Your task to perform on an android device: Open privacy settings Image 0: 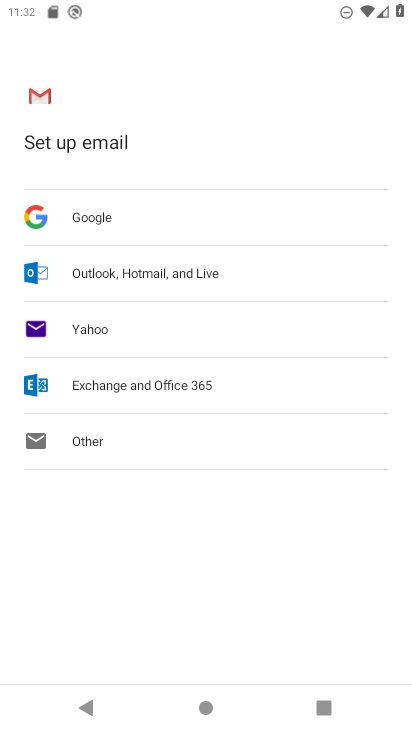
Step 0: press home button
Your task to perform on an android device: Open privacy settings Image 1: 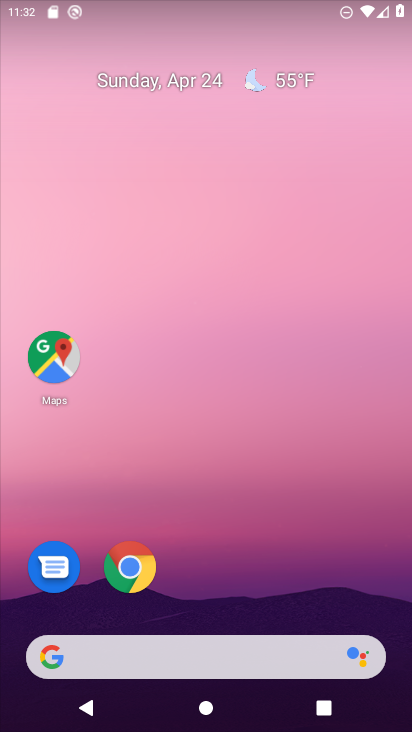
Step 1: drag from (409, 603) to (396, 268)
Your task to perform on an android device: Open privacy settings Image 2: 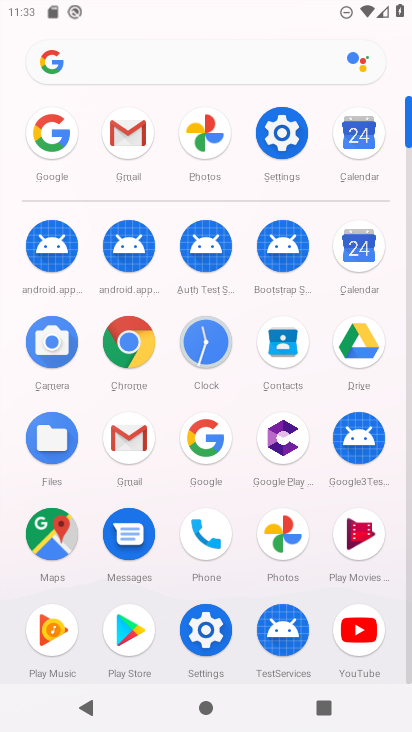
Step 2: click (281, 135)
Your task to perform on an android device: Open privacy settings Image 3: 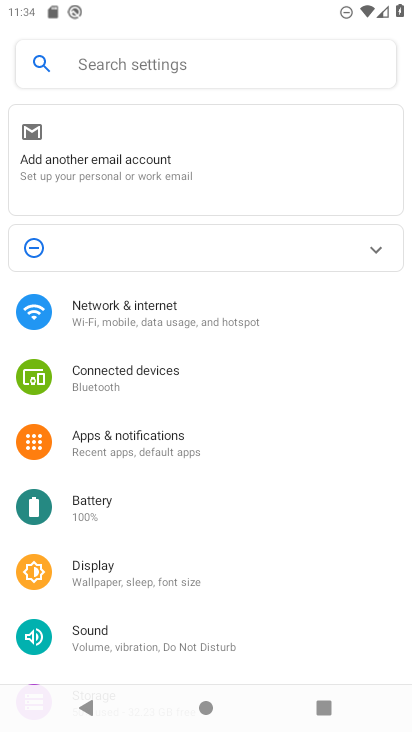
Step 3: drag from (296, 469) to (288, 351)
Your task to perform on an android device: Open privacy settings Image 4: 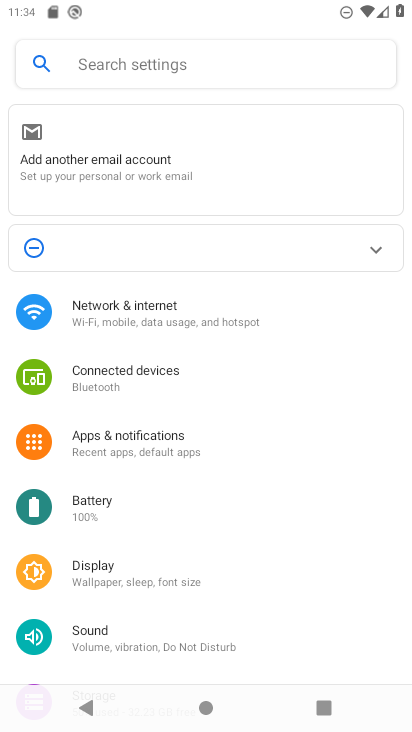
Step 4: drag from (275, 451) to (270, 368)
Your task to perform on an android device: Open privacy settings Image 5: 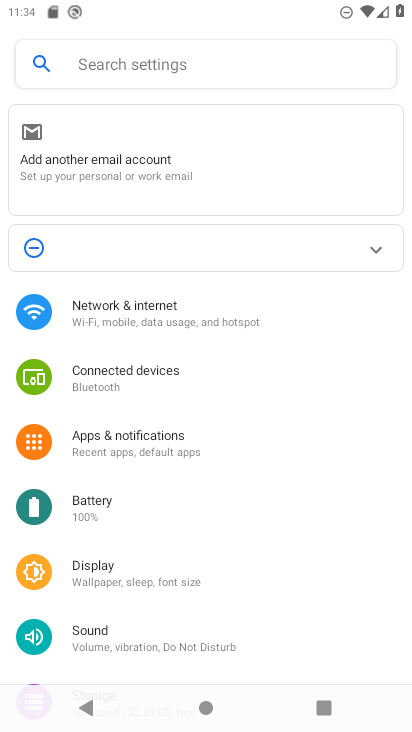
Step 5: drag from (315, 459) to (327, 291)
Your task to perform on an android device: Open privacy settings Image 6: 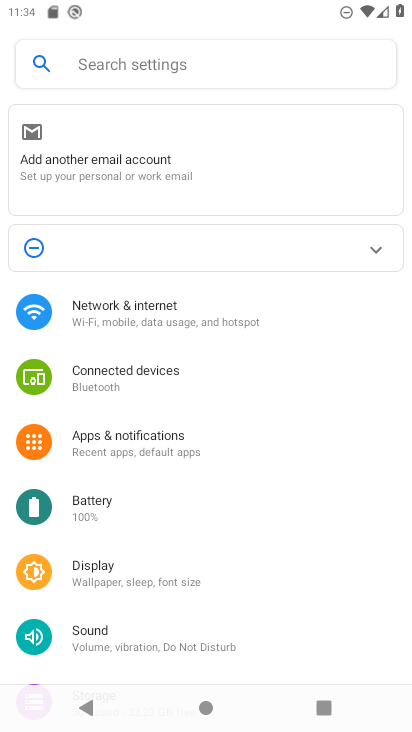
Step 6: drag from (304, 645) to (301, 214)
Your task to perform on an android device: Open privacy settings Image 7: 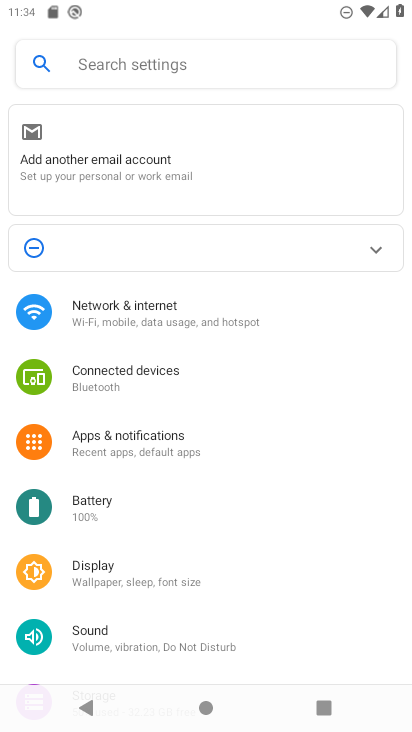
Step 7: press home button
Your task to perform on an android device: Open privacy settings Image 8: 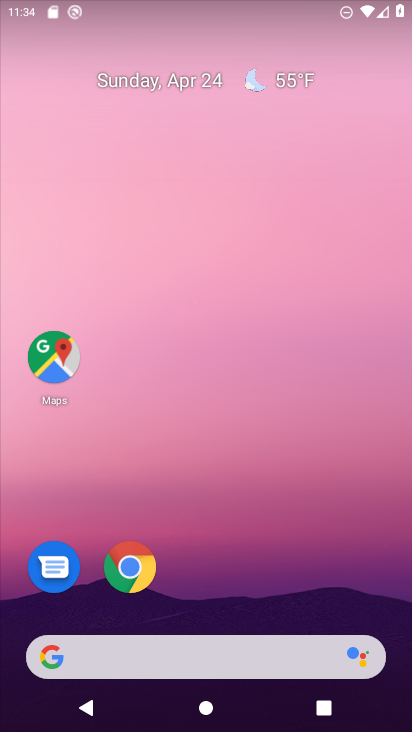
Step 8: drag from (379, 601) to (375, 193)
Your task to perform on an android device: Open privacy settings Image 9: 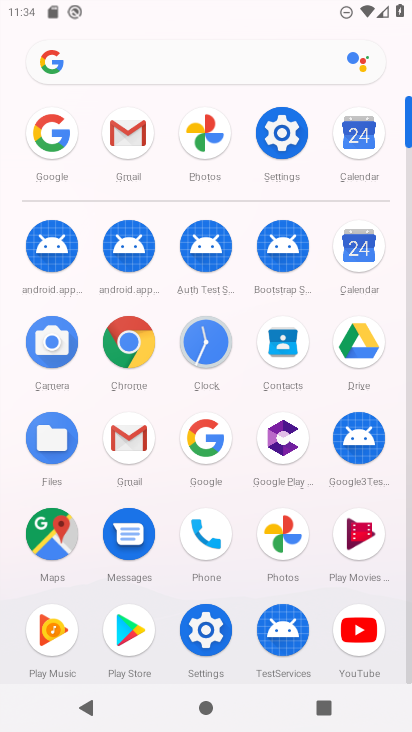
Step 9: click (275, 131)
Your task to perform on an android device: Open privacy settings Image 10: 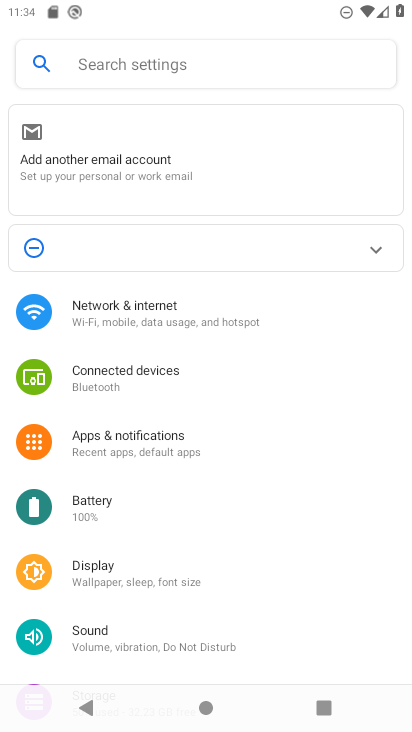
Step 10: press home button
Your task to perform on an android device: Open privacy settings Image 11: 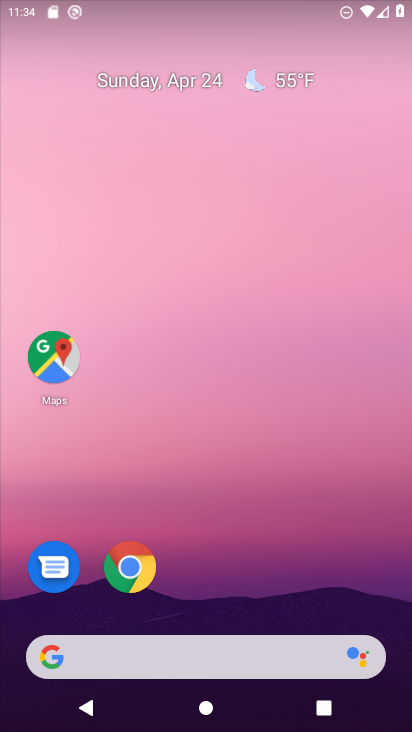
Step 11: click (127, 566)
Your task to perform on an android device: Open privacy settings Image 12: 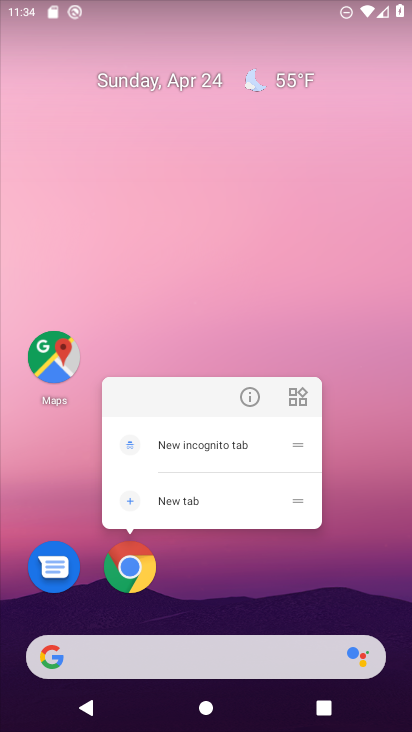
Step 12: click (127, 566)
Your task to perform on an android device: Open privacy settings Image 13: 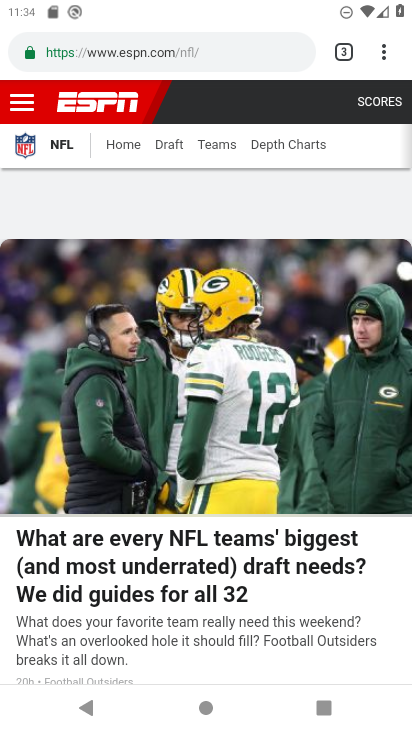
Step 13: click (383, 49)
Your task to perform on an android device: Open privacy settings Image 14: 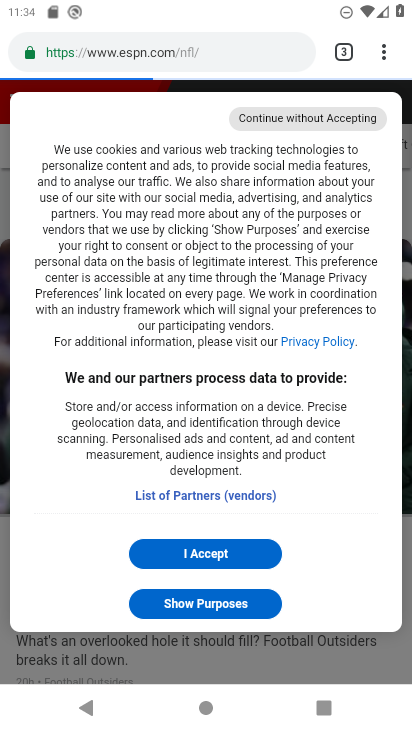
Step 14: click (383, 49)
Your task to perform on an android device: Open privacy settings Image 15: 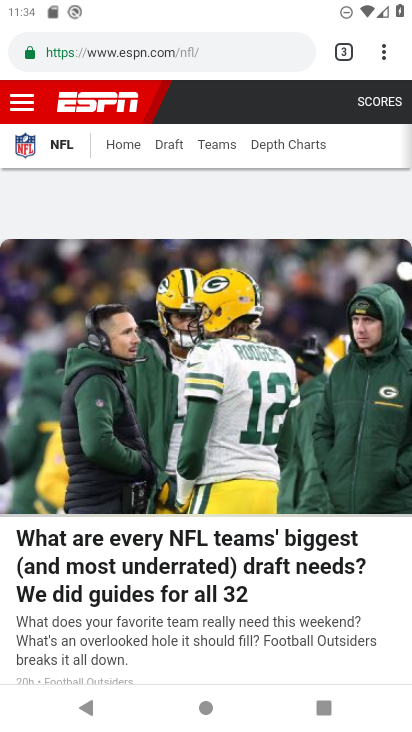
Step 15: click (383, 49)
Your task to perform on an android device: Open privacy settings Image 16: 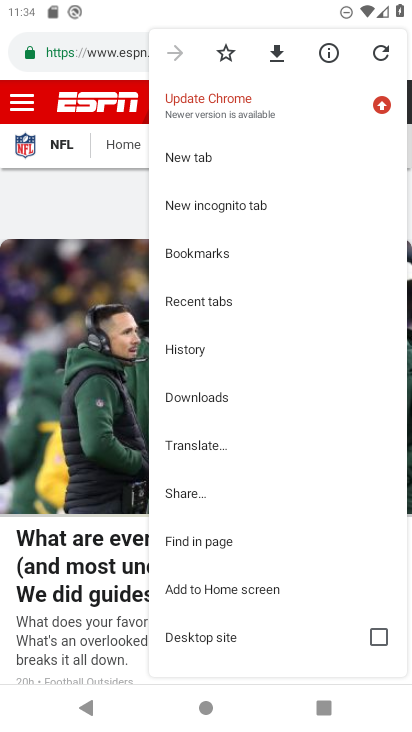
Step 16: drag from (287, 638) to (264, 302)
Your task to perform on an android device: Open privacy settings Image 17: 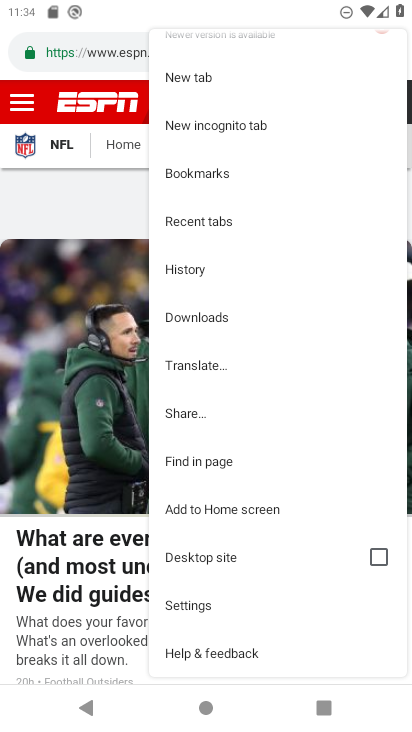
Step 17: click (198, 599)
Your task to perform on an android device: Open privacy settings Image 18: 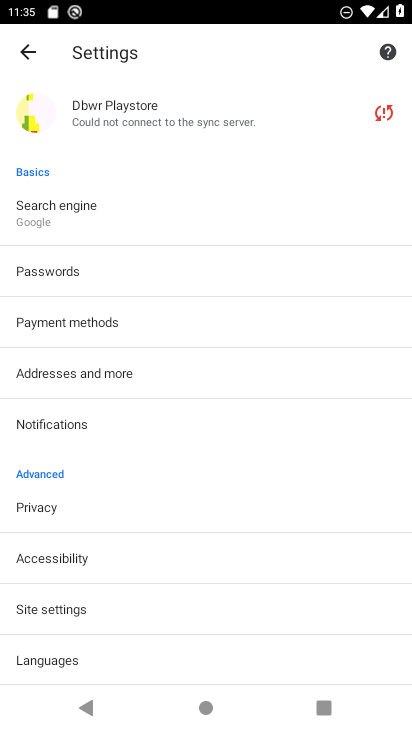
Step 18: click (66, 604)
Your task to perform on an android device: Open privacy settings Image 19: 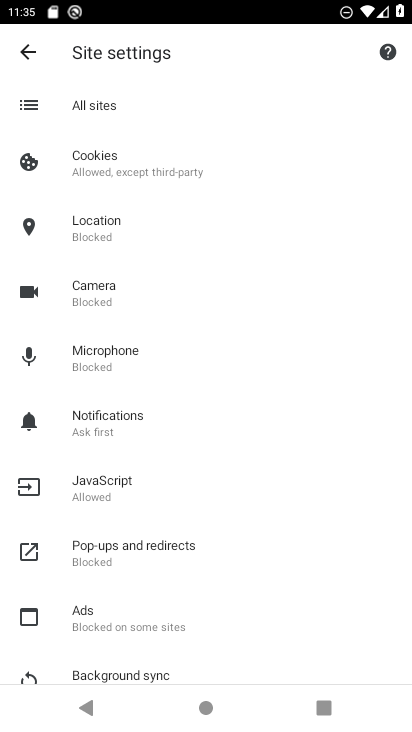
Step 19: click (22, 53)
Your task to perform on an android device: Open privacy settings Image 20: 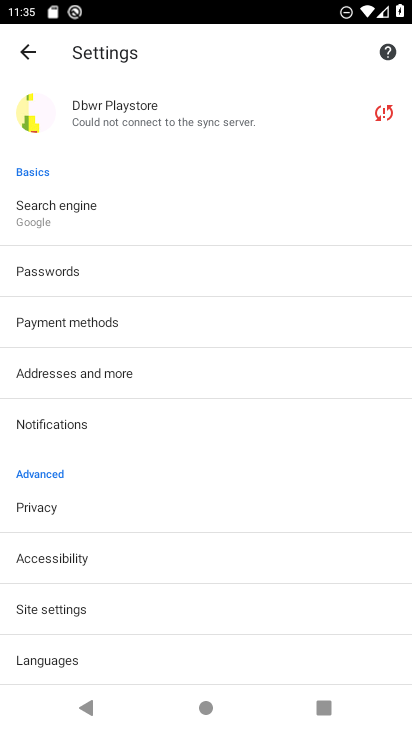
Step 20: click (37, 508)
Your task to perform on an android device: Open privacy settings Image 21: 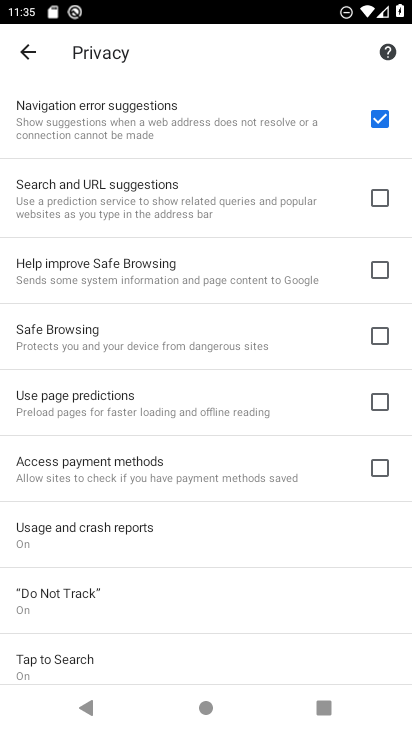
Step 21: task complete